Your task to perform on an android device: open a new tab in the chrome app Image 0: 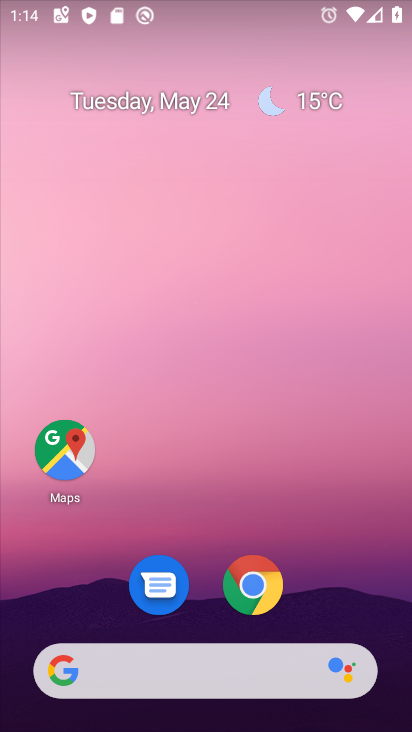
Step 0: click (264, 575)
Your task to perform on an android device: open a new tab in the chrome app Image 1: 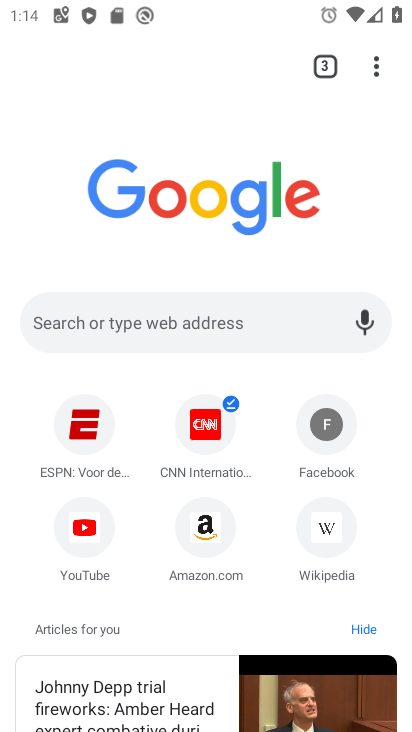
Step 1: click (372, 70)
Your task to perform on an android device: open a new tab in the chrome app Image 2: 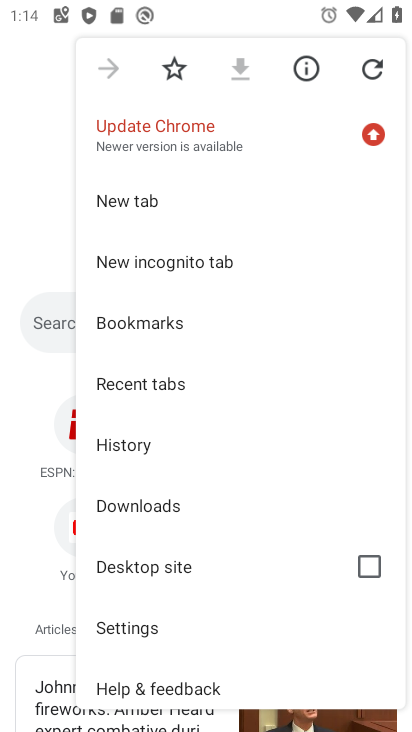
Step 2: click (223, 196)
Your task to perform on an android device: open a new tab in the chrome app Image 3: 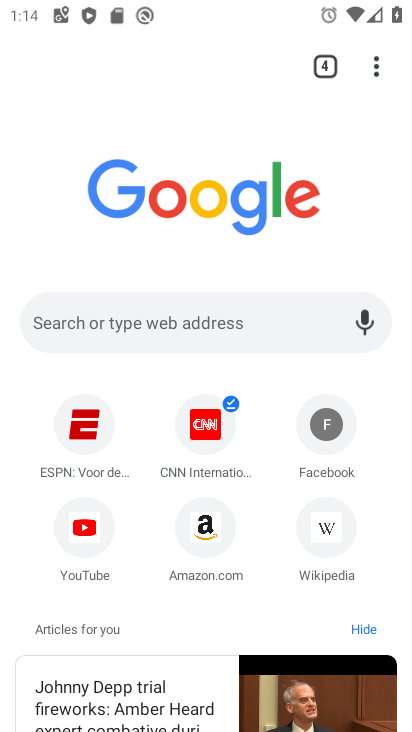
Step 3: task complete